Your task to perform on an android device: Go to internet settings Image 0: 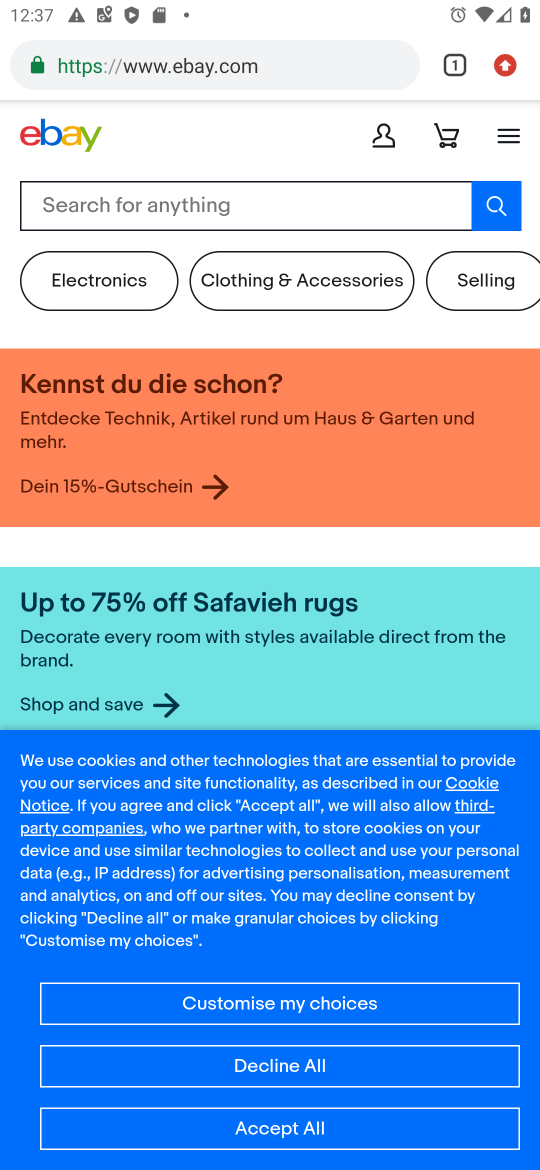
Step 0: press home button
Your task to perform on an android device: Go to internet settings Image 1: 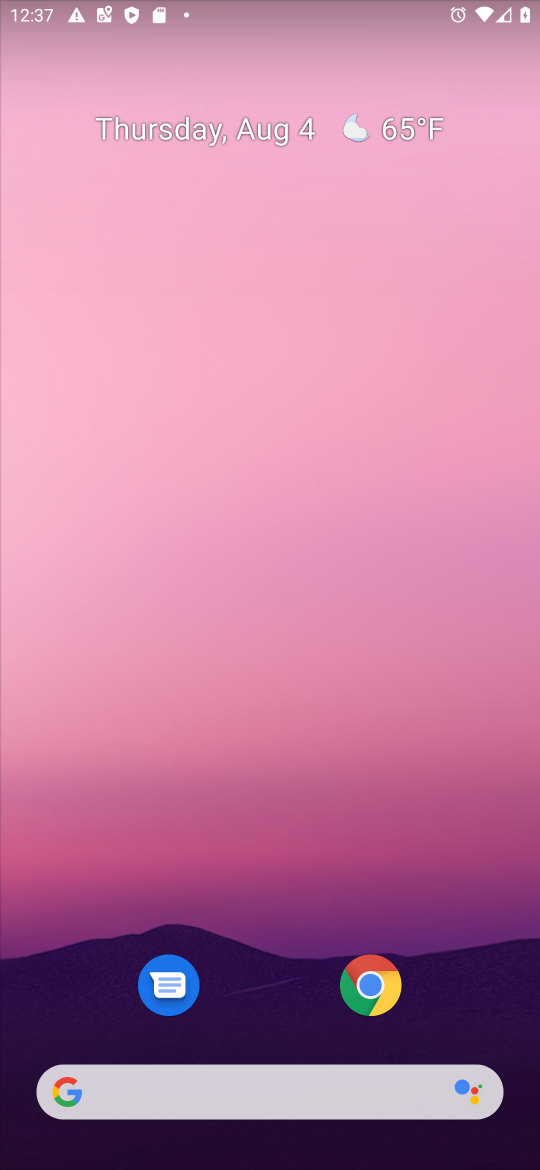
Step 1: drag from (296, 838) to (276, 201)
Your task to perform on an android device: Go to internet settings Image 2: 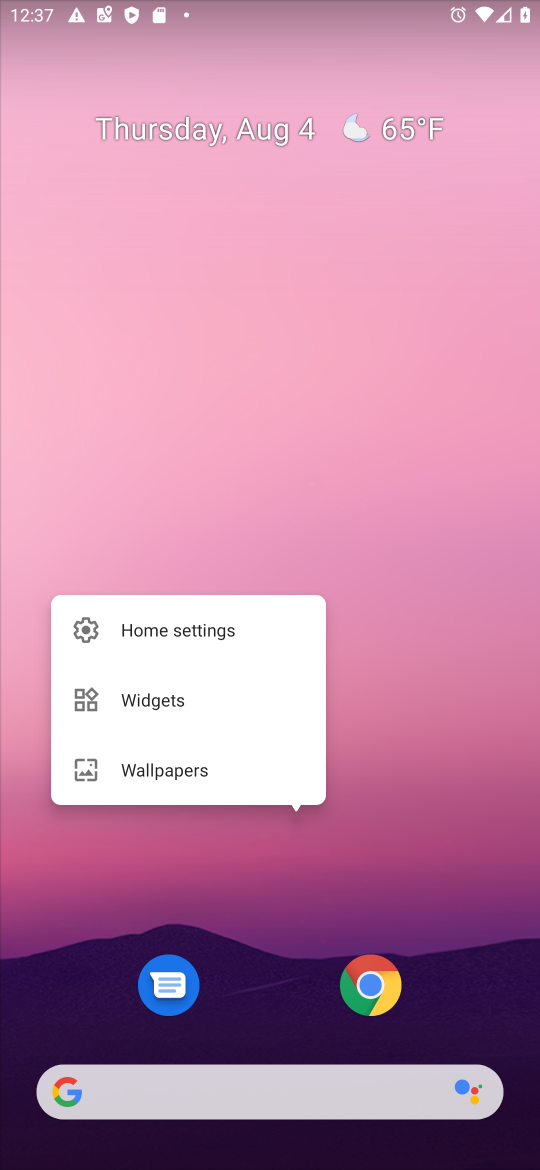
Step 2: click (373, 583)
Your task to perform on an android device: Go to internet settings Image 3: 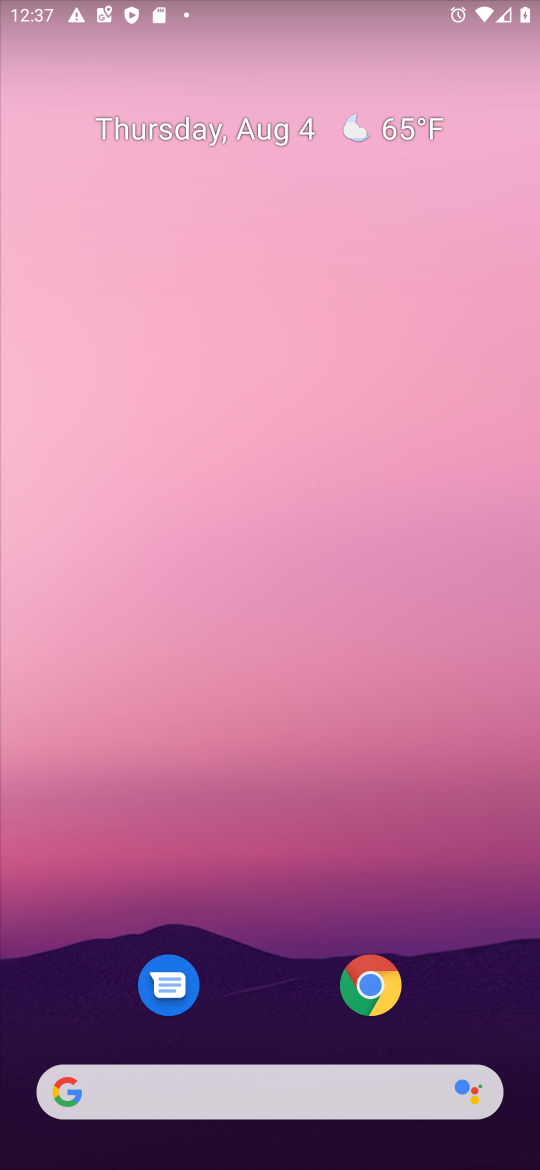
Step 3: drag from (243, 883) to (236, 208)
Your task to perform on an android device: Go to internet settings Image 4: 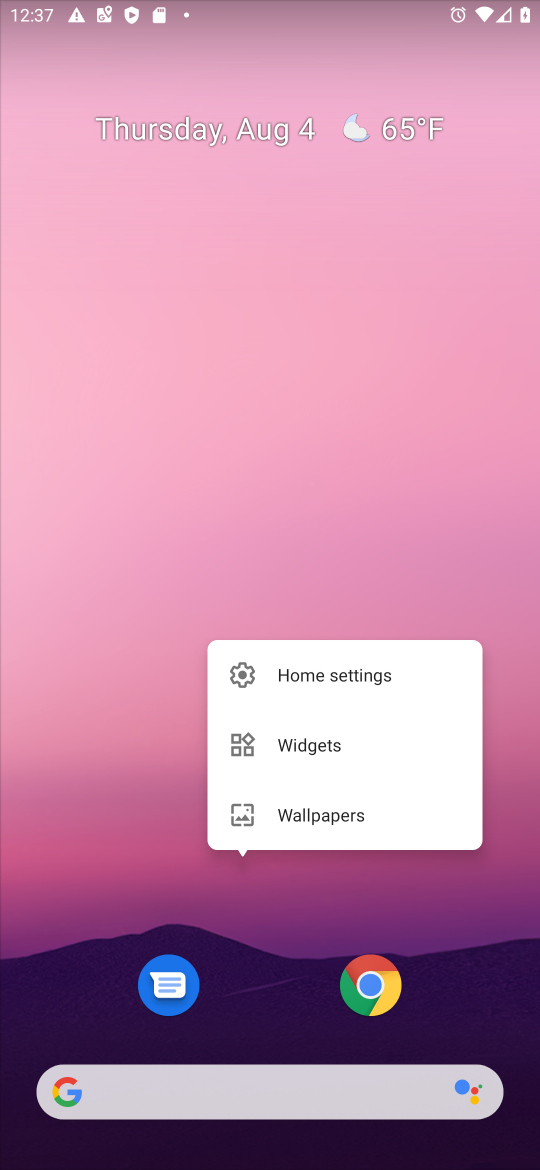
Step 4: click (170, 423)
Your task to perform on an android device: Go to internet settings Image 5: 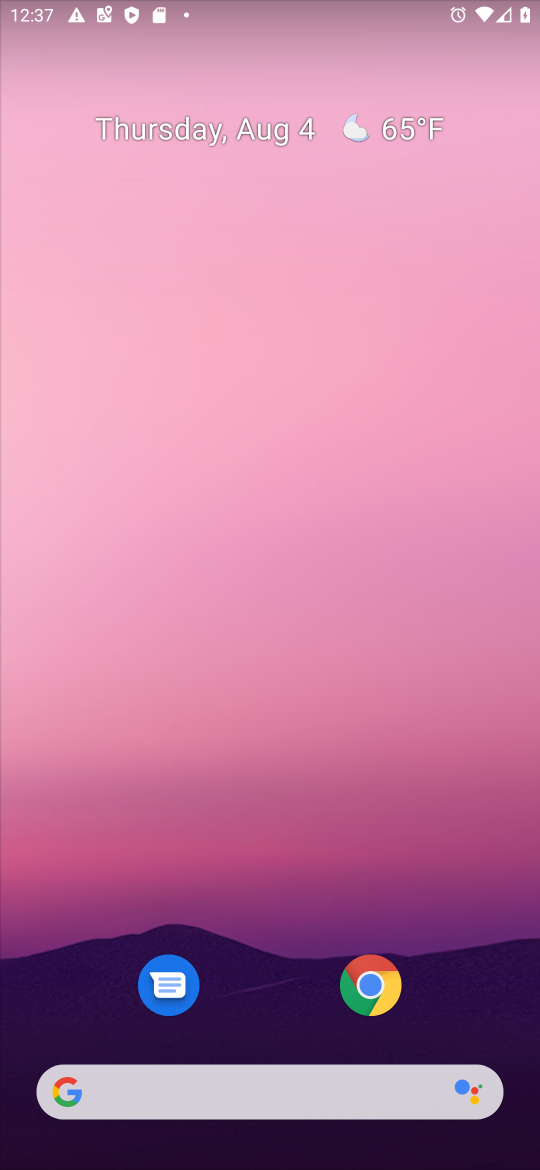
Step 5: drag from (273, 894) to (296, 169)
Your task to perform on an android device: Go to internet settings Image 6: 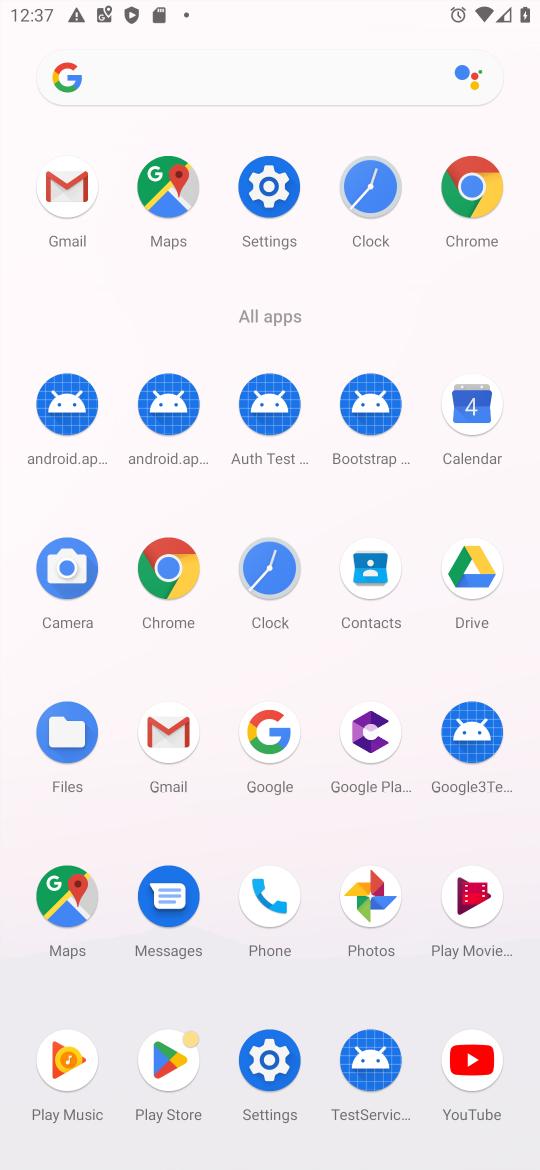
Step 6: click (274, 182)
Your task to perform on an android device: Go to internet settings Image 7: 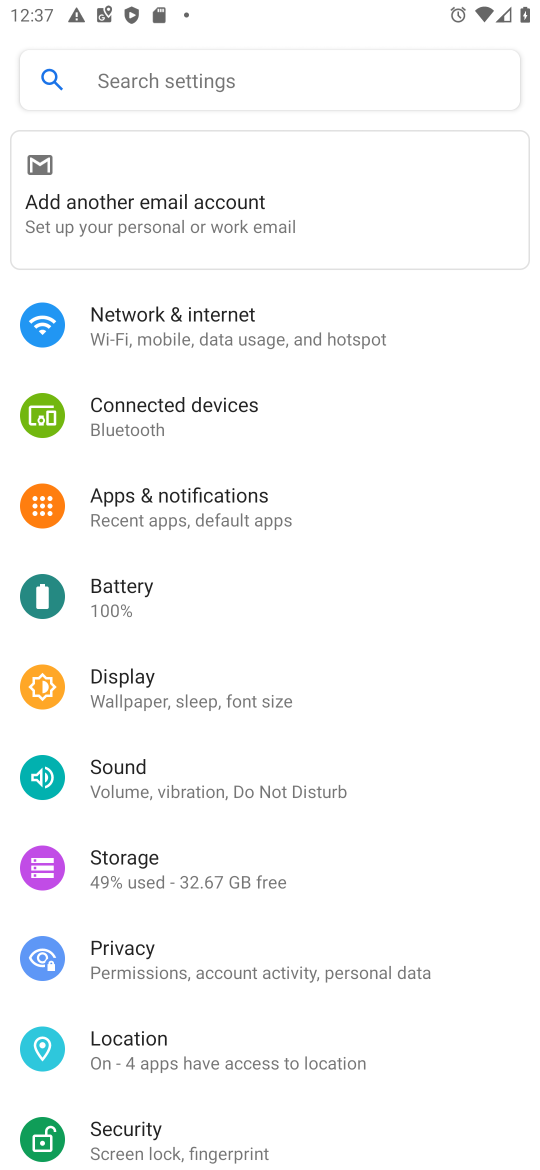
Step 7: click (187, 300)
Your task to perform on an android device: Go to internet settings Image 8: 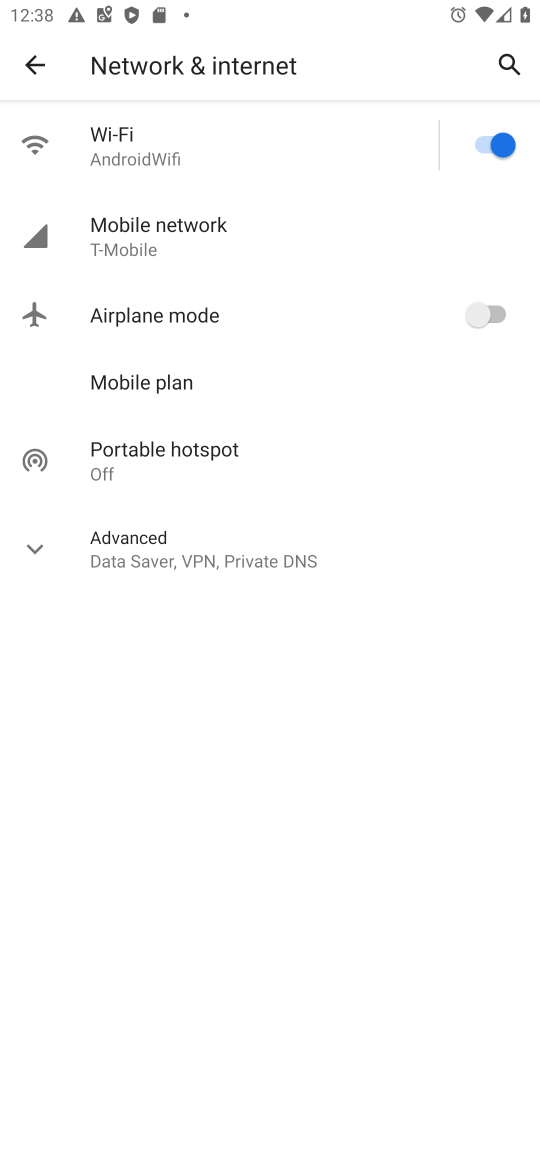
Step 8: task complete